Your task to perform on an android device: open chrome privacy settings Image 0: 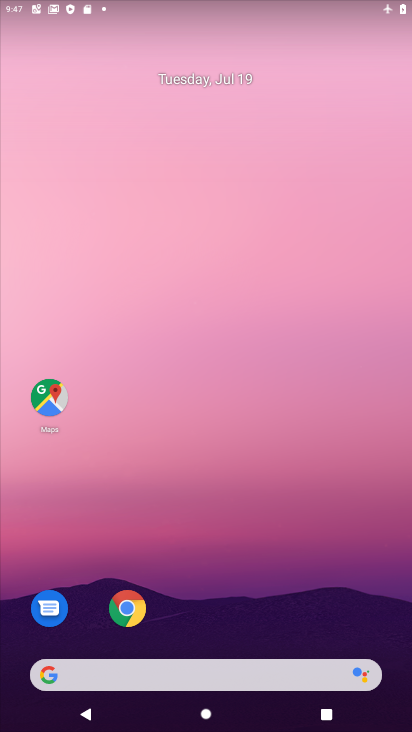
Step 0: drag from (277, 544) to (237, 46)
Your task to perform on an android device: open chrome privacy settings Image 1: 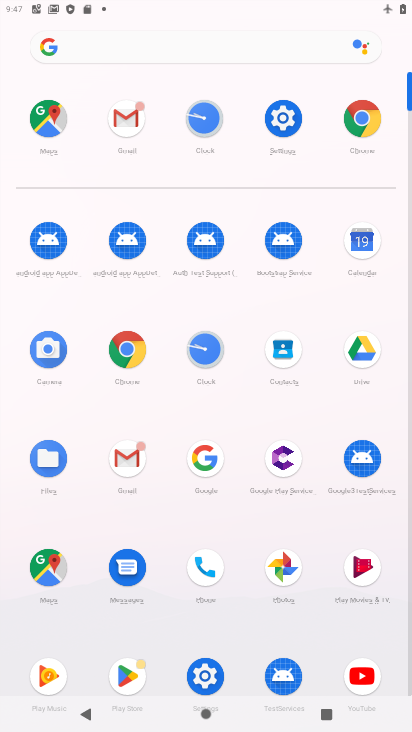
Step 1: click (365, 126)
Your task to perform on an android device: open chrome privacy settings Image 2: 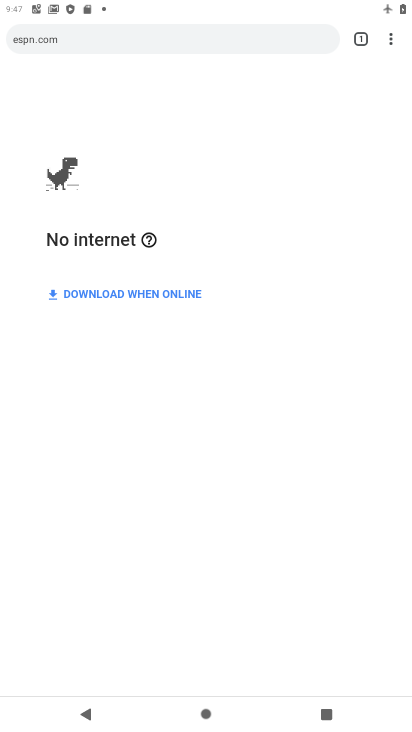
Step 2: click (388, 38)
Your task to perform on an android device: open chrome privacy settings Image 3: 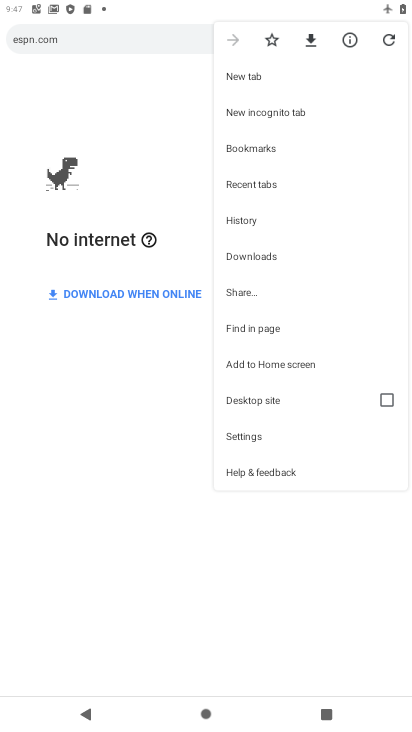
Step 3: click (250, 432)
Your task to perform on an android device: open chrome privacy settings Image 4: 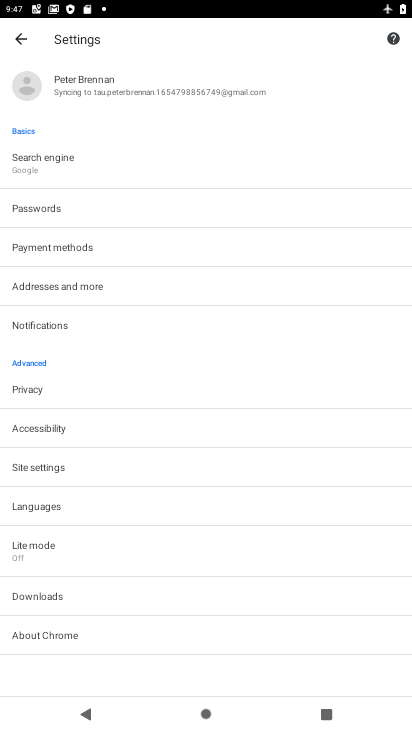
Step 4: click (68, 465)
Your task to perform on an android device: open chrome privacy settings Image 5: 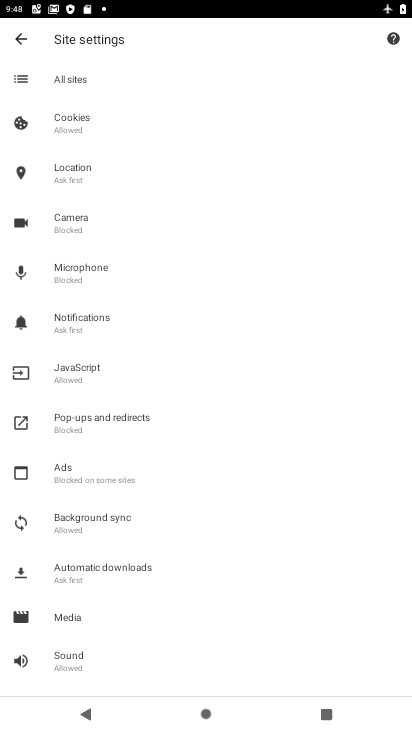
Step 5: drag from (210, 570) to (239, 306)
Your task to perform on an android device: open chrome privacy settings Image 6: 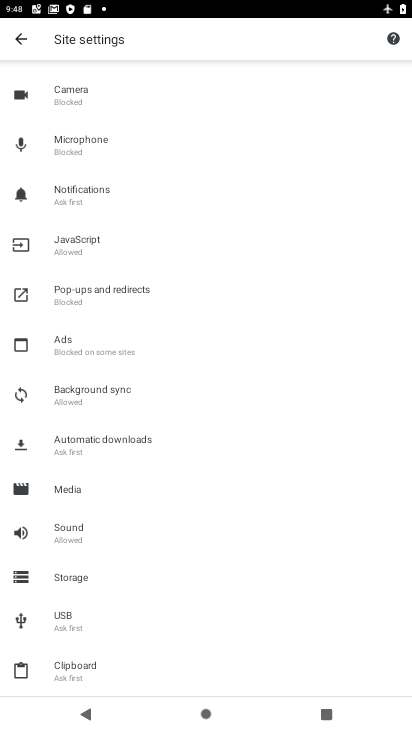
Step 6: drag from (124, 182) to (71, 505)
Your task to perform on an android device: open chrome privacy settings Image 7: 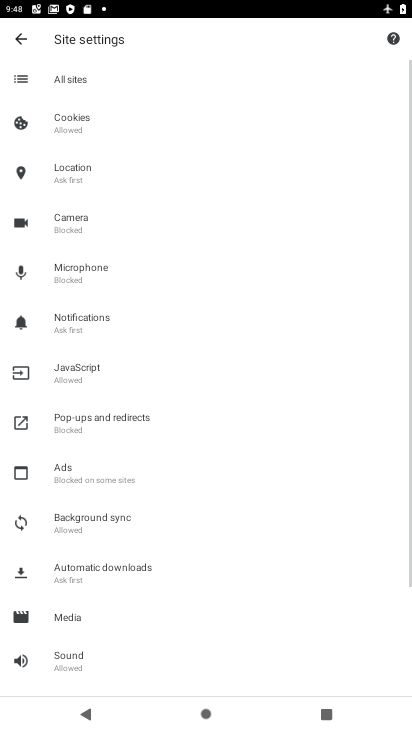
Step 7: click (26, 42)
Your task to perform on an android device: open chrome privacy settings Image 8: 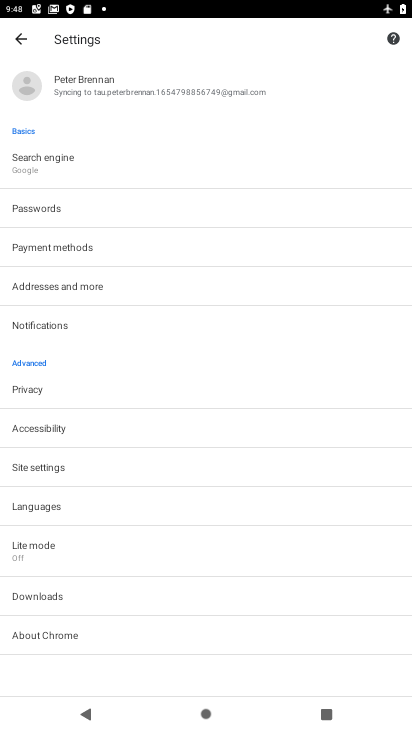
Step 8: click (37, 389)
Your task to perform on an android device: open chrome privacy settings Image 9: 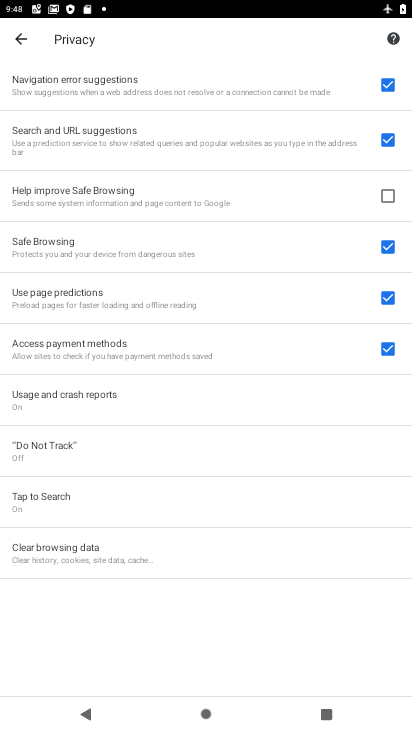
Step 9: task complete